Your task to perform on an android device: Search for Mexican restaurants on Maps Image 0: 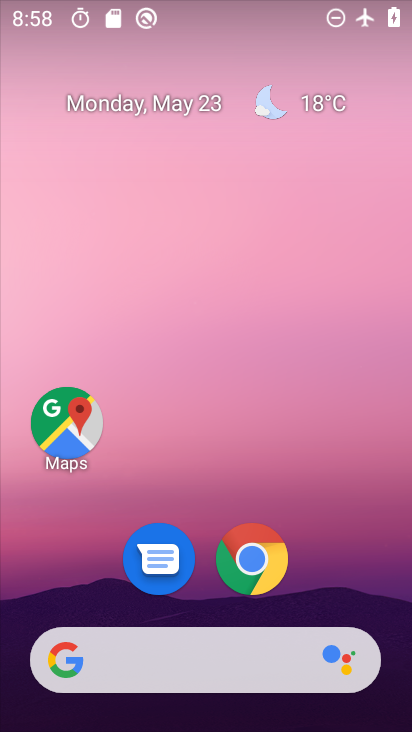
Step 0: drag from (382, 578) to (293, 39)
Your task to perform on an android device: Search for Mexican restaurants on Maps Image 1: 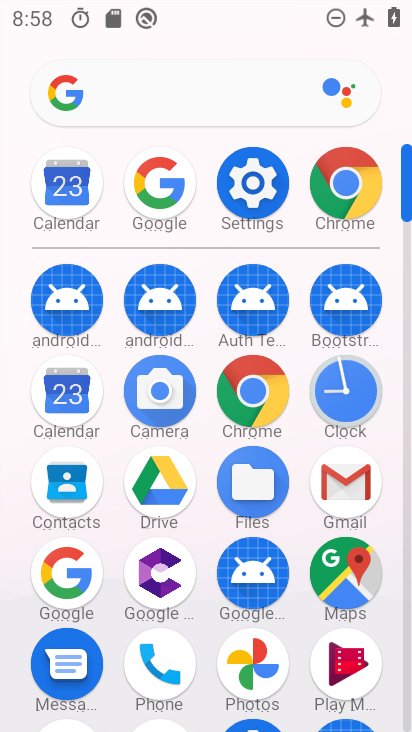
Step 1: click (330, 574)
Your task to perform on an android device: Search for Mexican restaurants on Maps Image 2: 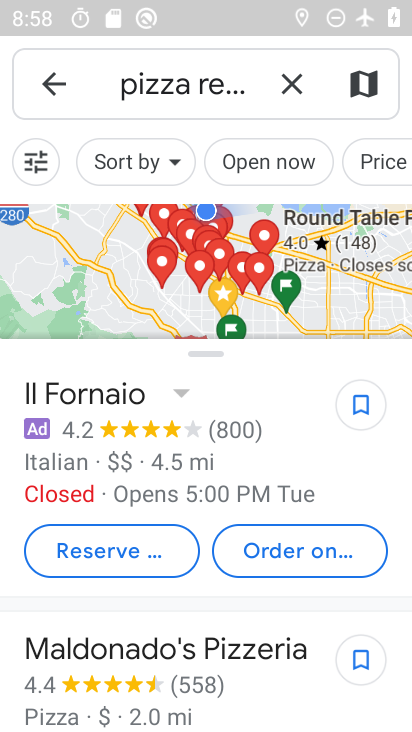
Step 2: click (300, 76)
Your task to perform on an android device: Search for Mexican restaurants on Maps Image 3: 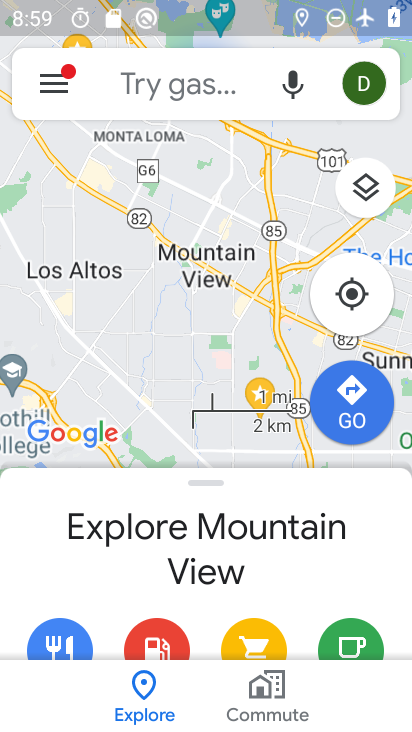
Step 3: click (196, 83)
Your task to perform on an android device: Search for Mexican restaurants on Maps Image 4: 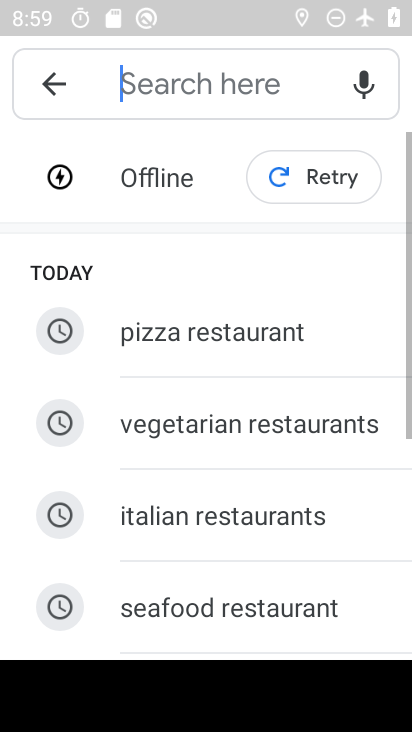
Step 4: drag from (173, 599) to (178, 154)
Your task to perform on an android device: Search for Mexican restaurants on Maps Image 5: 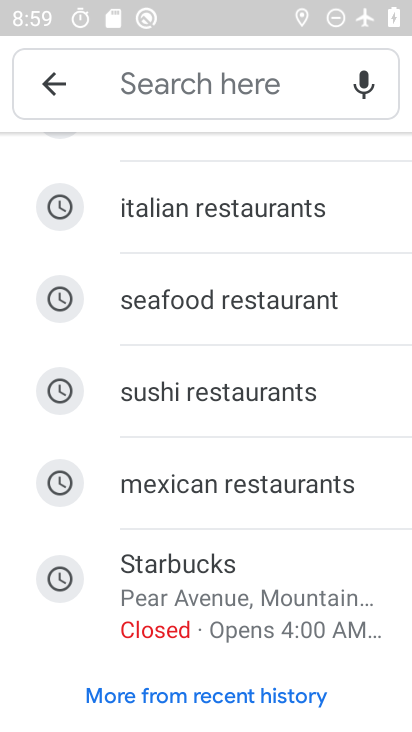
Step 5: click (294, 482)
Your task to perform on an android device: Search for Mexican restaurants on Maps Image 6: 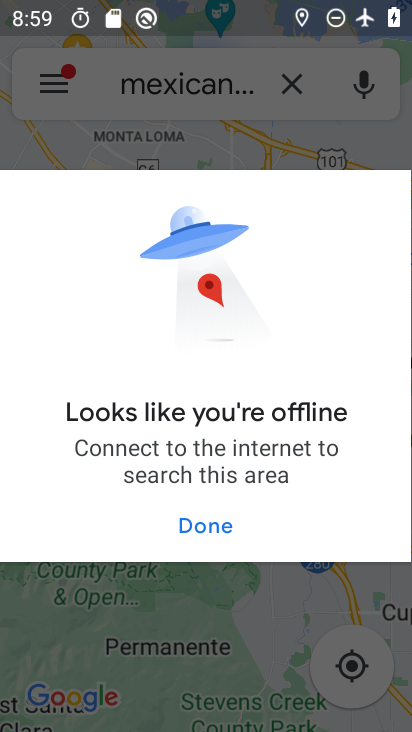
Step 6: task complete